Your task to perform on an android device: Open the calendar and show me this week's events? Image 0: 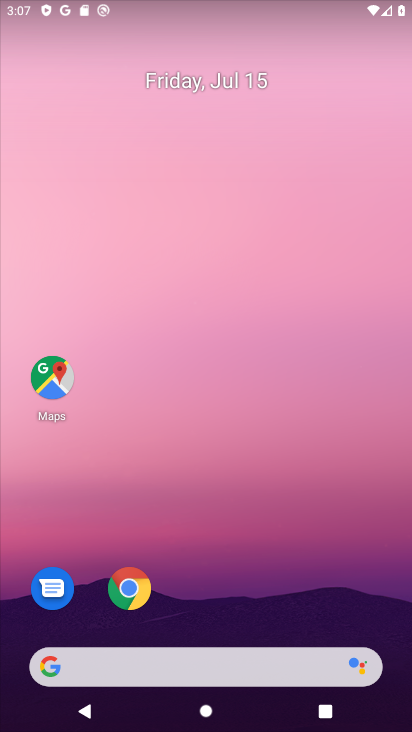
Step 0: drag from (385, 625) to (254, 98)
Your task to perform on an android device: Open the calendar and show me this week's events? Image 1: 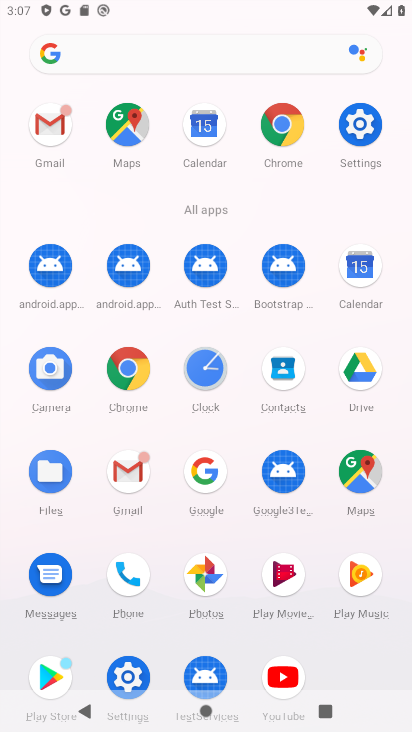
Step 1: click (366, 265)
Your task to perform on an android device: Open the calendar and show me this week's events? Image 2: 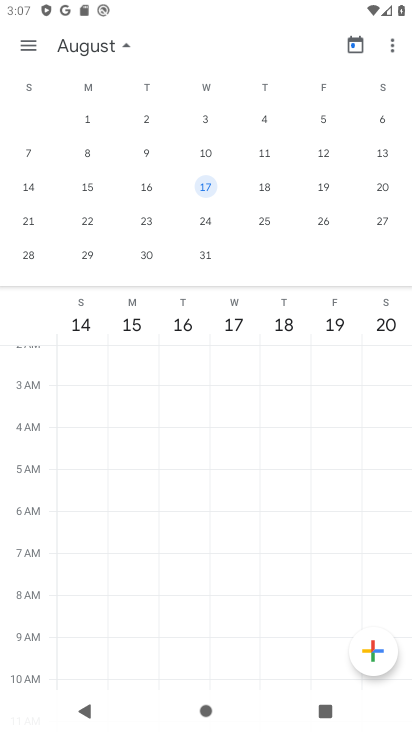
Step 2: click (34, 46)
Your task to perform on an android device: Open the calendar and show me this week's events? Image 3: 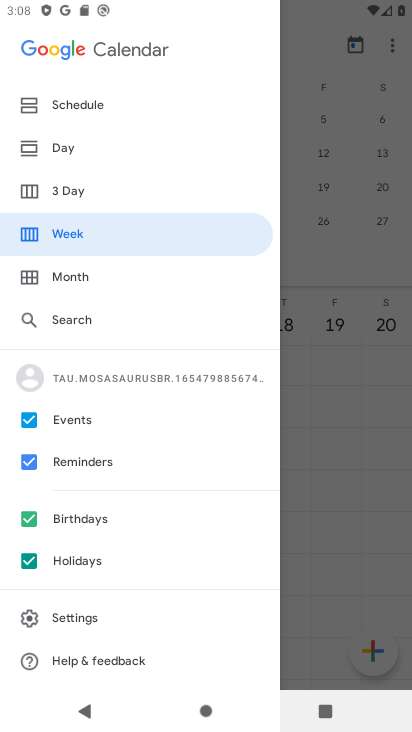
Step 3: click (31, 556)
Your task to perform on an android device: Open the calendar and show me this week's events? Image 4: 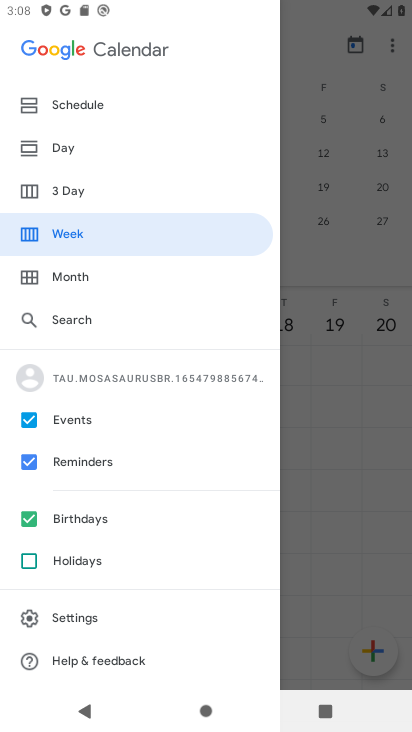
Step 4: click (27, 519)
Your task to perform on an android device: Open the calendar and show me this week's events? Image 5: 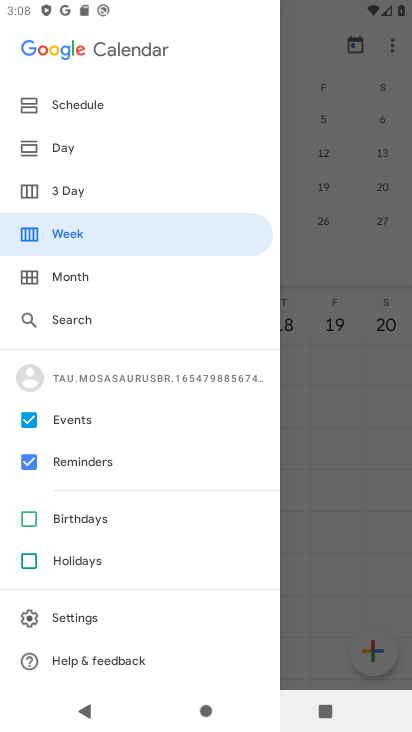
Step 5: click (24, 462)
Your task to perform on an android device: Open the calendar and show me this week's events? Image 6: 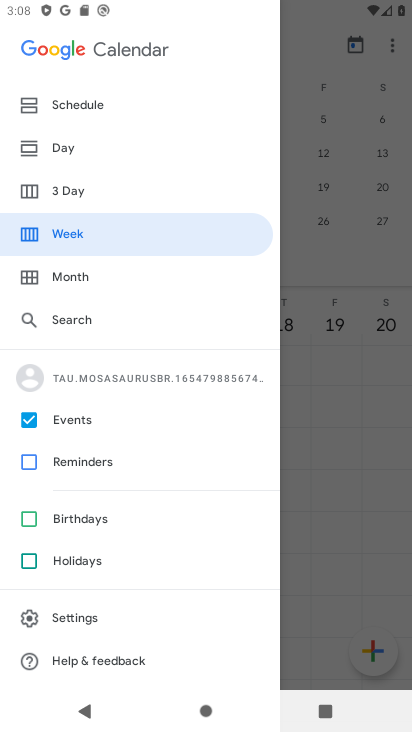
Step 6: click (57, 242)
Your task to perform on an android device: Open the calendar and show me this week's events? Image 7: 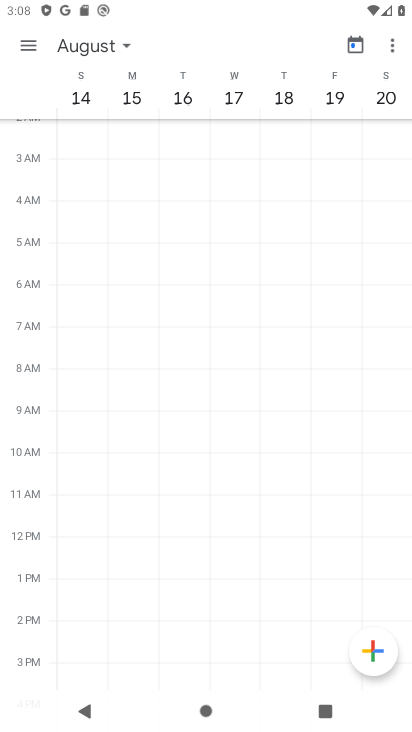
Step 7: click (120, 45)
Your task to perform on an android device: Open the calendar and show me this week's events? Image 8: 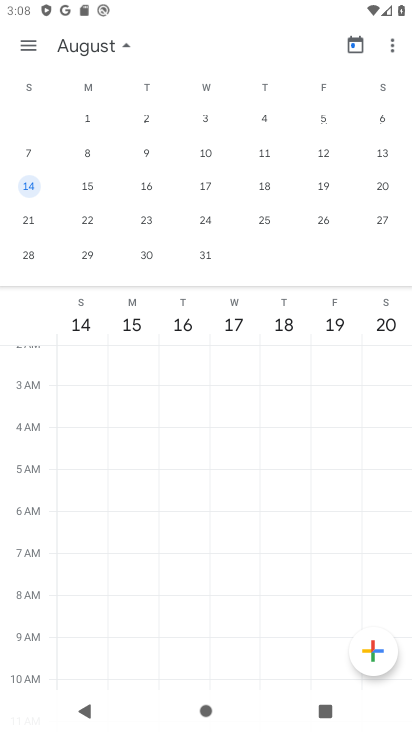
Step 8: drag from (57, 165) to (380, 162)
Your task to perform on an android device: Open the calendar and show me this week's events? Image 9: 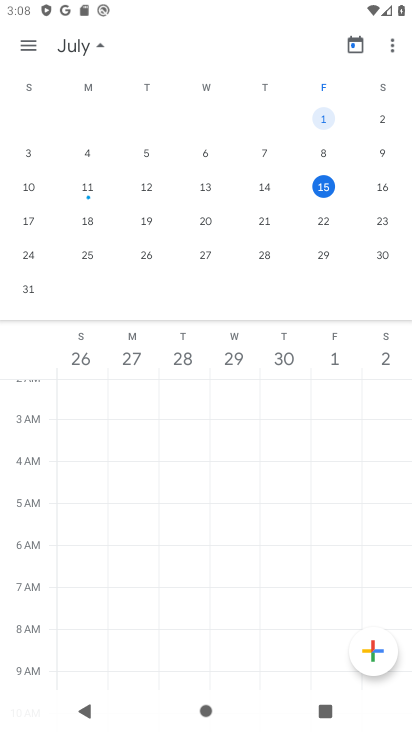
Step 9: click (328, 188)
Your task to perform on an android device: Open the calendar and show me this week's events? Image 10: 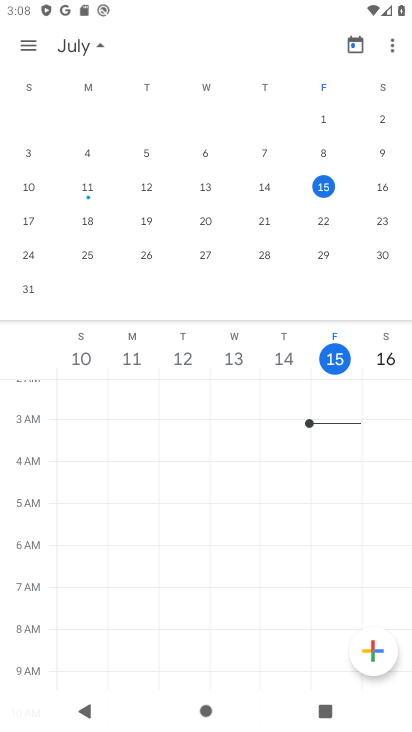
Step 10: task complete